Your task to perform on an android device: Go to display settings Image 0: 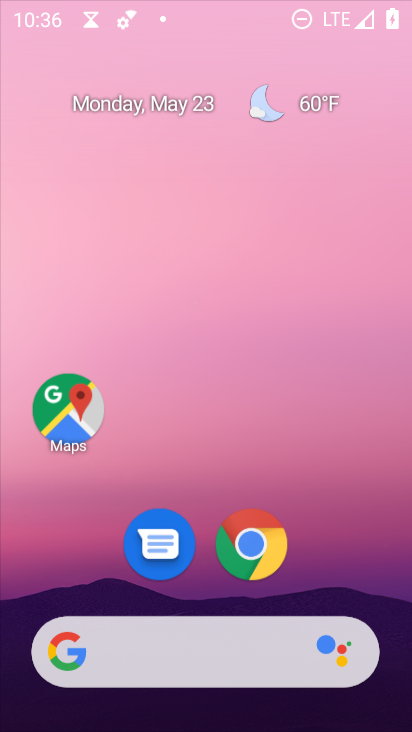
Step 0: click (236, 327)
Your task to perform on an android device: Go to display settings Image 1: 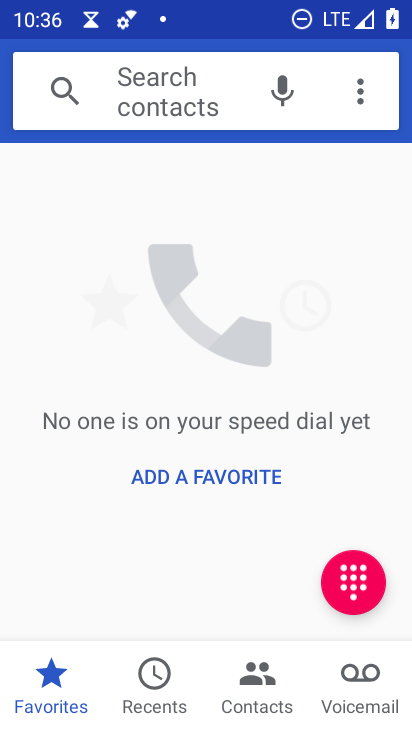
Step 1: click (112, 112)
Your task to perform on an android device: Go to display settings Image 2: 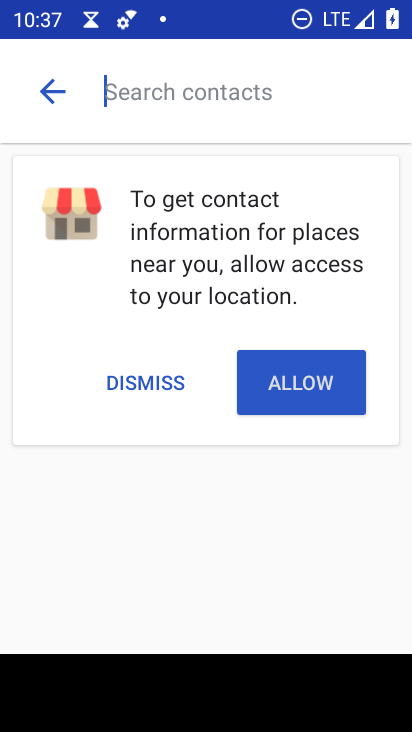
Step 2: press home button
Your task to perform on an android device: Go to display settings Image 3: 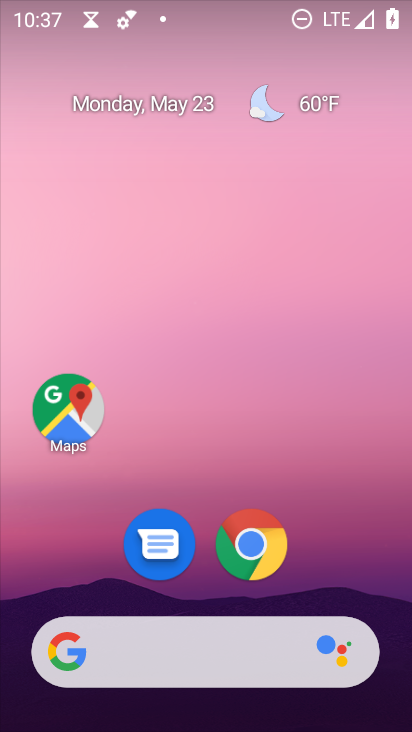
Step 3: drag from (325, 541) to (79, 139)
Your task to perform on an android device: Go to display settings Image 4: 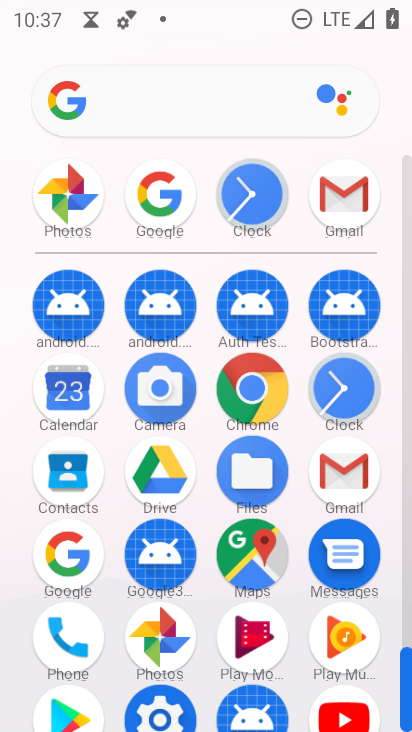
Step 4: click (163, 707)
Your task to perform on an android device: Go to display settings Image 5: 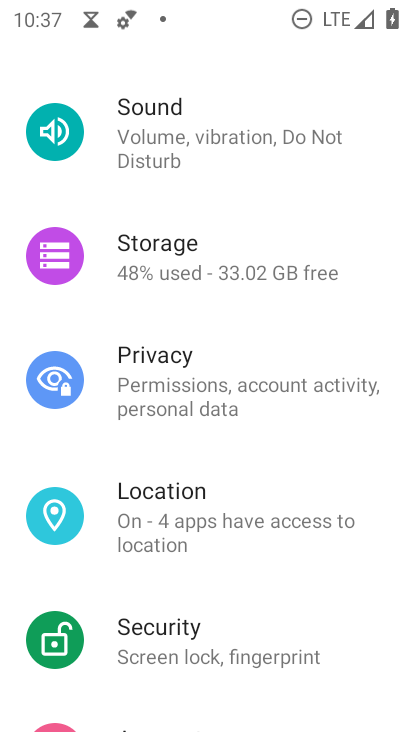
Step 5: click (213, 181)
Your task to perform on an android device: Go to display settings Image 6: 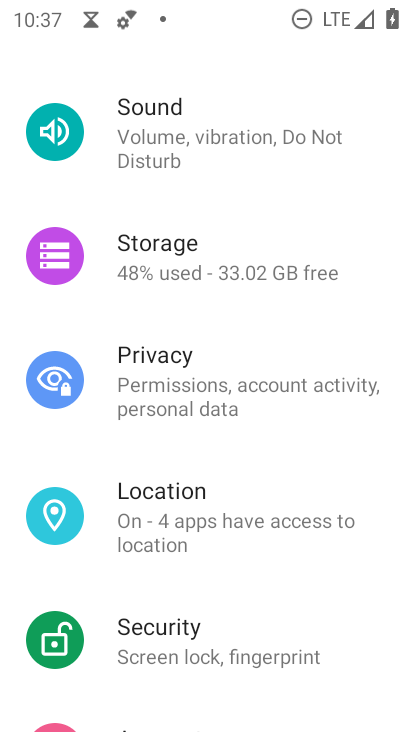
Step 6: drag from (200, 458) to (187, 590)
Your task to perform on an android device: Go to display settings Image 7: 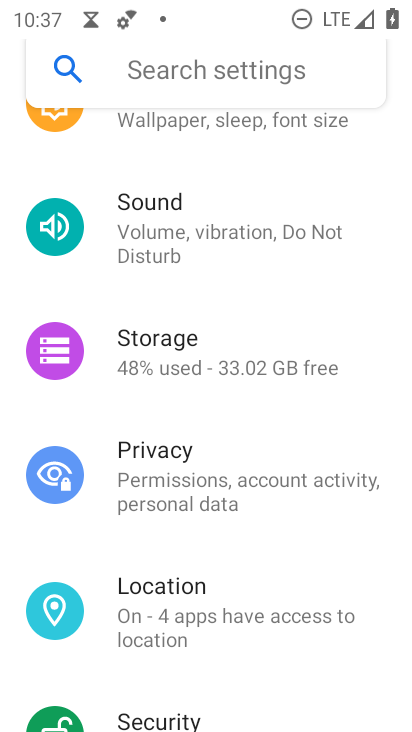
Step 7: drag from (240, 235) to (228, 602)
Your task to perform on an android device: Go to display settings Image 8: 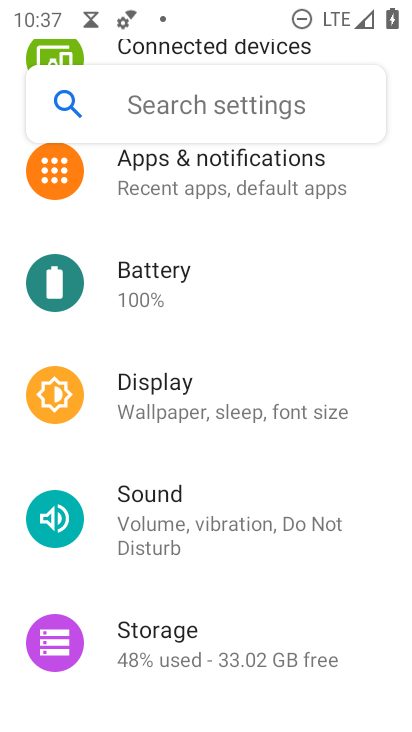
Step 8: click (188, 412)
Your task to perform on an android device: Go to display settings Image 9: 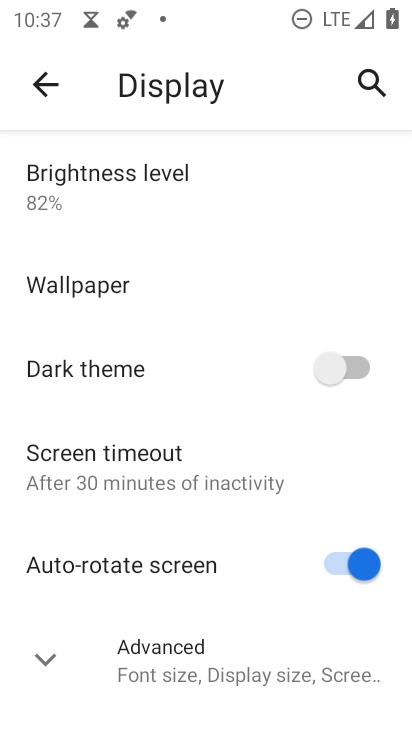
Step 9: click (137, 649)
Your task to perform on an android device: Go to display settings Image 10: 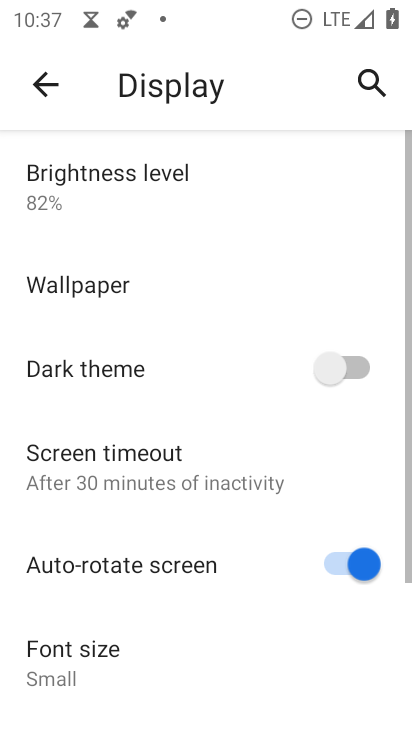
Step 10: task complete